Your task to perform on an android device: allow notifications from all sites in the chrome app Image 0: 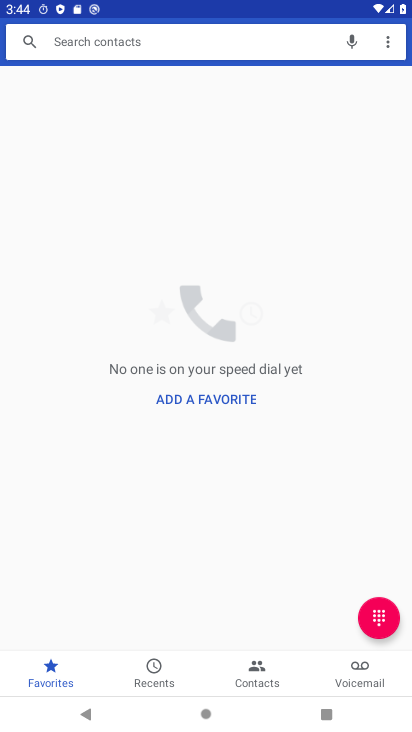
Step 0: press home button
Your task to perform on an android device: allow notifications from all sites in the chrome app Image 1: 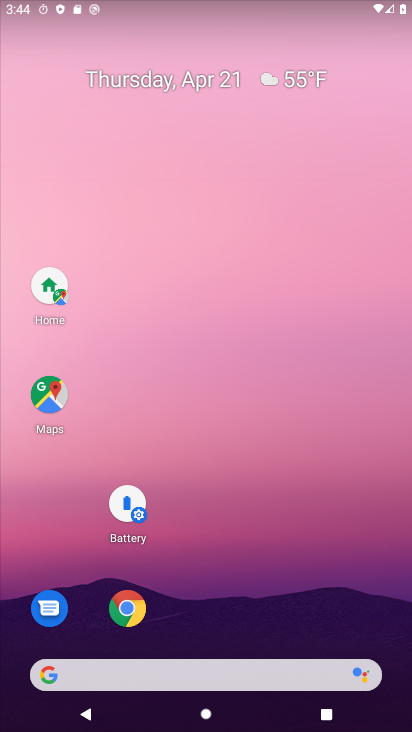
Step 1: drag from (330, 579) to (306, 98)
Your task to perform on an android device: allow notifications from all sites in the chrome app Image 2: 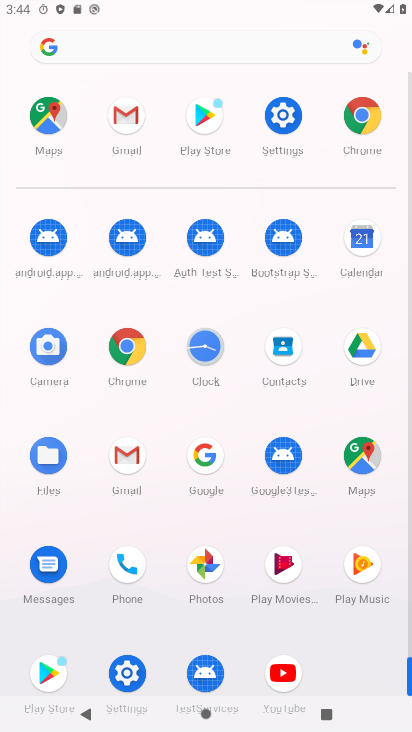
Step 2: click (371, 126)
Your task to perform on an android device: allow notifications from all sites in the chrome app Image 3: 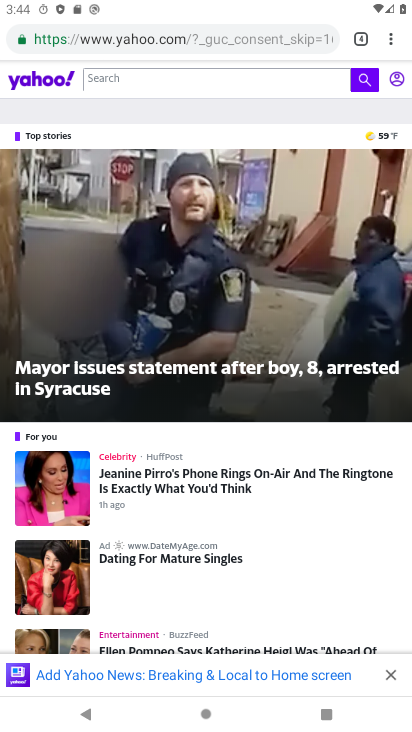
Step 3: drag from (391, 38) to (267, 511)
Your task to perform on an android device: allow notifications from all sites in the chrome app Image 4: 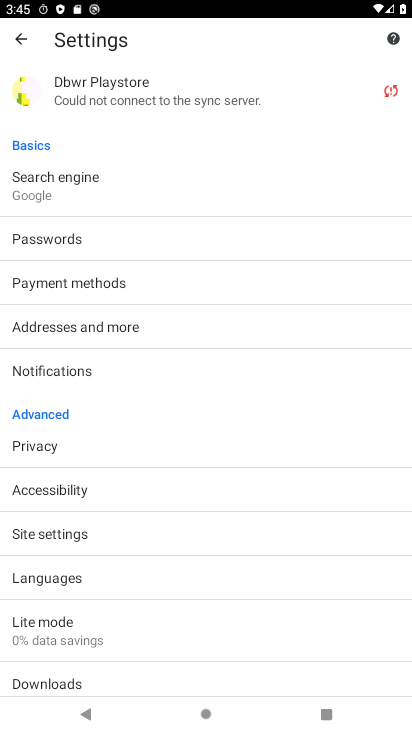
Step 4: click (39, 531)
Your task to perform on an android device: allow notifications from all sites in the chrome app Image 5: 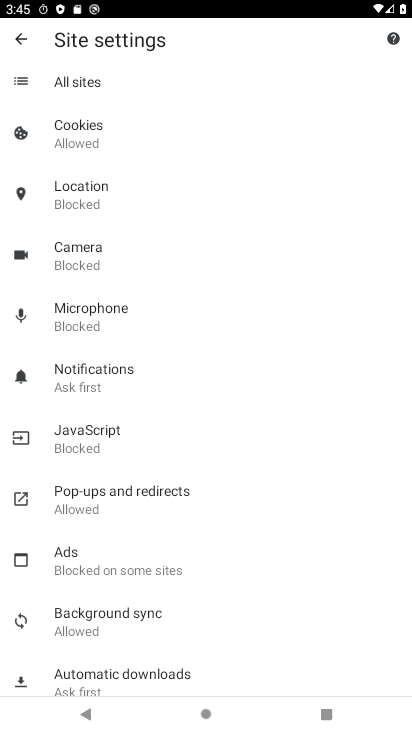
Step 5: drag from (134, 625) to (92, 335)
Your task to perform on an android device: allow notifications from all sites in the chrome app Image 6: 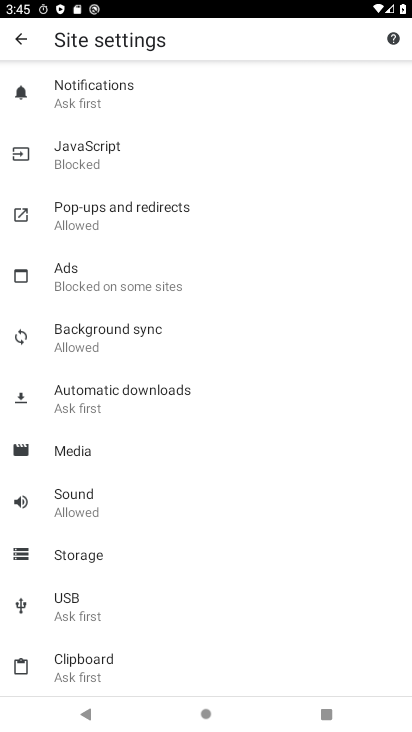
Step 6: drag from (128, 648) to (160, 242)
Your task to perform on an android device: allow notifications from all sites in the chrome app Image 7: 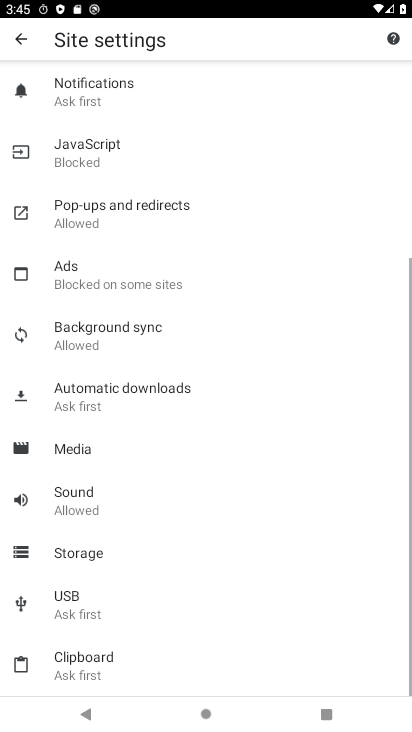
Step 7: drag from (171, 318) to (170, 628)
Your task to perform on an android device: allow notifications from all sites in the chrome app Image 8: 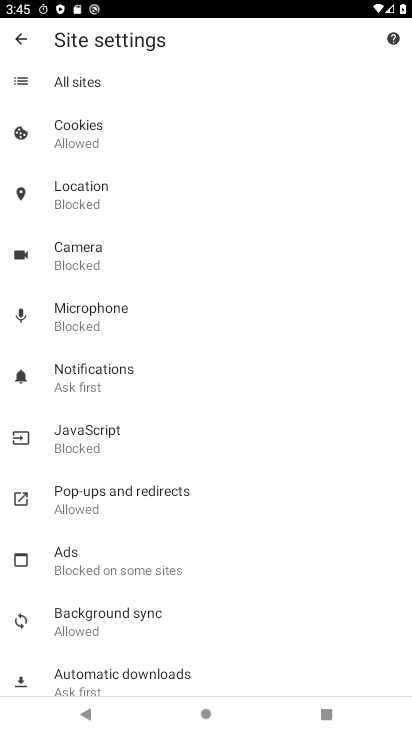
Step 8: click (104, 372)
Your task to perform on an android device: allow notifications from all sites in the chrome app Image 9: 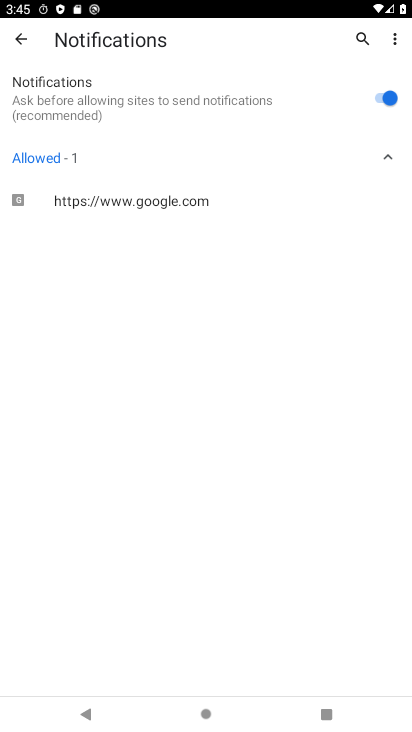
Step 9: click (389, 101)
Your task to perform on an android device: allow notifications from all sites in the chrome app Image 10: 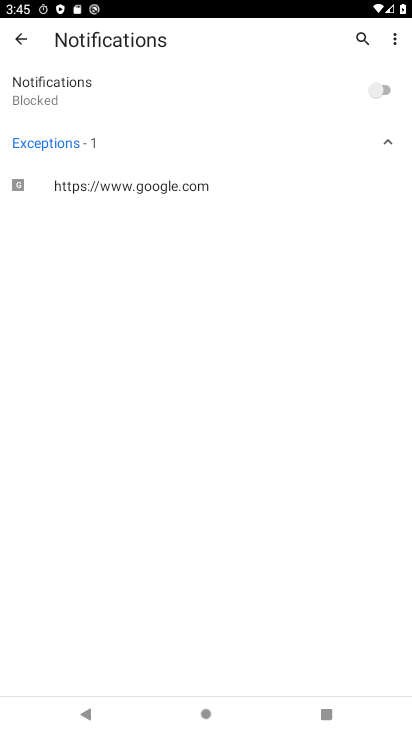
Step 10: task complete